Your task to perform on an android device: turn pop-ups off in chrome Image 0: 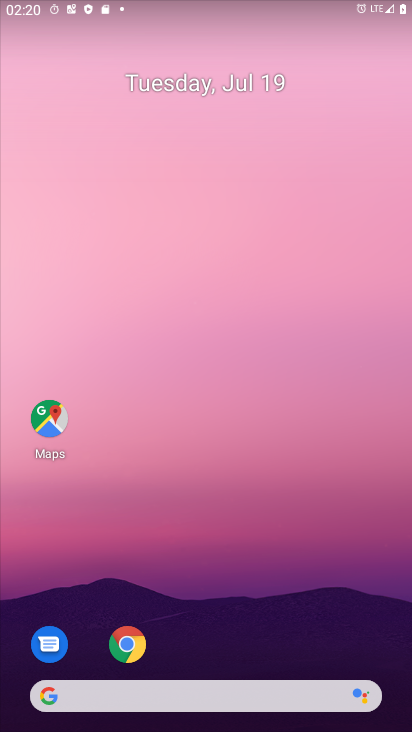
Step 0: click (124, 645)
Your task to perform on an android device: turn pop-ups off in chrome Image 1: 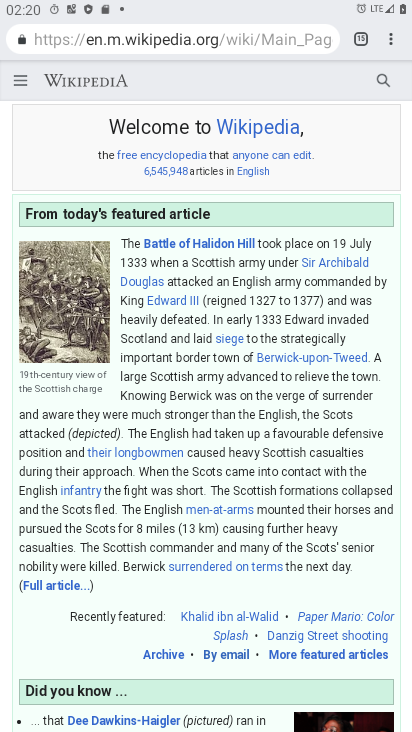
Step 1: click (392, 41)
Your task to perform on an android device: turn pop-ups off in chrome Image 2: 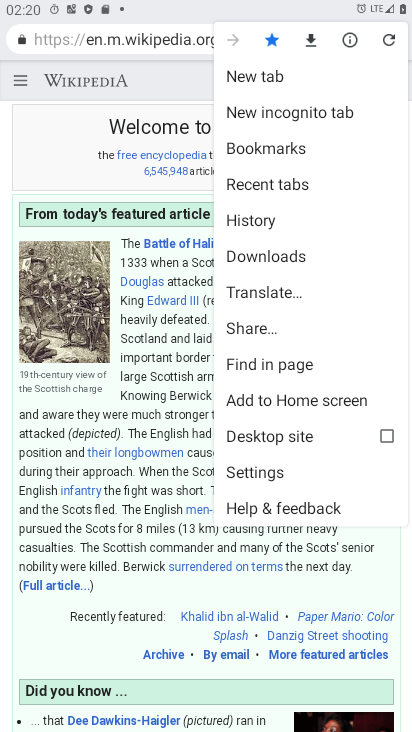
Step 2: click (242, 465)
Your task to perform on an android device: turn pop-ups off in chrome Image 3: 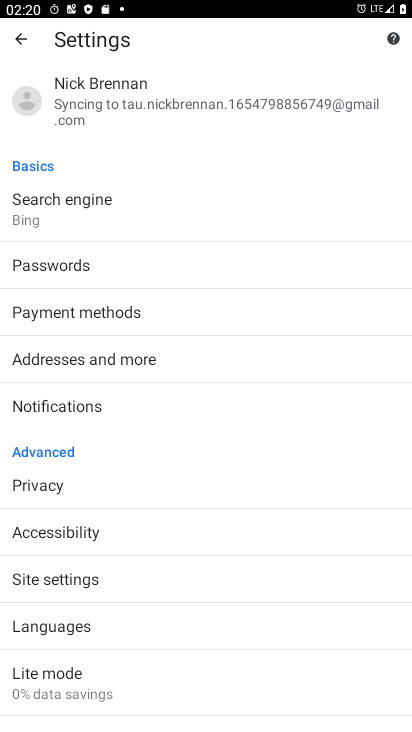
Step 3: click (28, 576)
Your task to perform on an android device: turn pop-ups off in chrome Image 4: 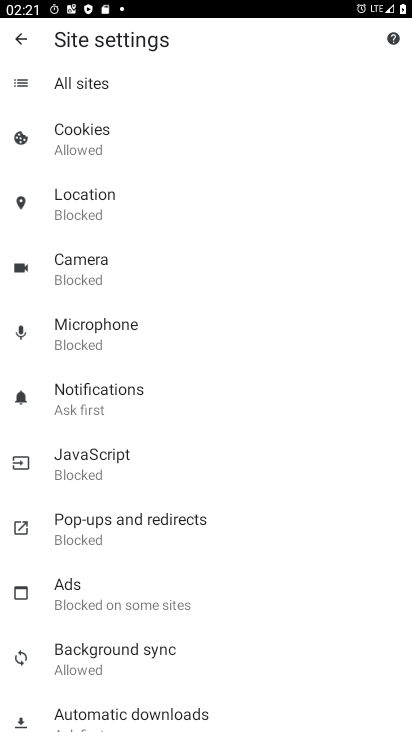
Step 4: click (70, 538)
Your task to perform on an android device: turn pop-ups off in chrome Image 5: 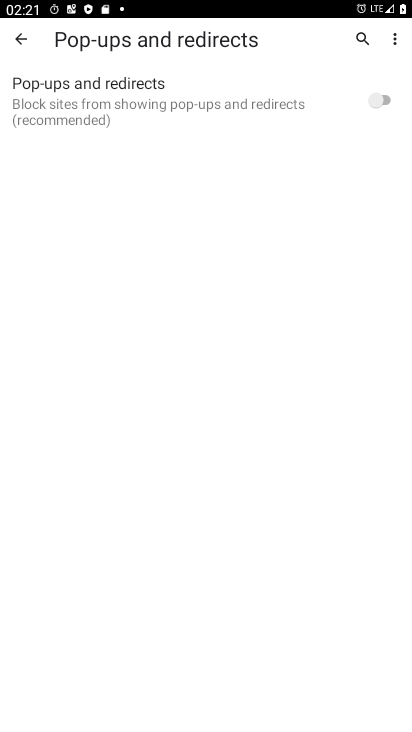
Step 5: task complete